Your task to perform on an android device: check out phone information Image 0: 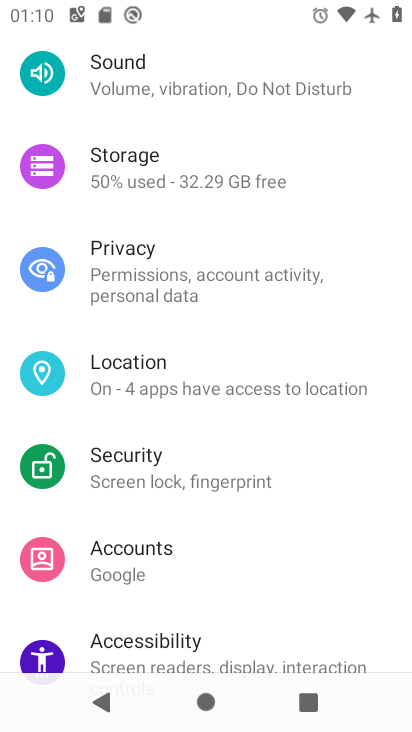
Step 0: press home button
Your task to perform on an android device: check out phone information Image 1: 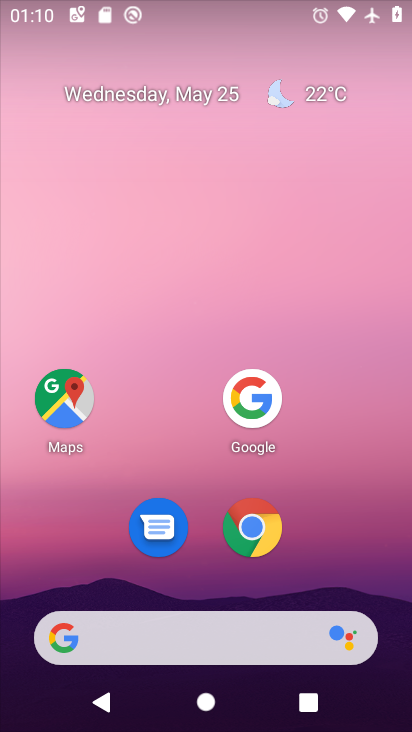
Step 1: drag from (181, 645) to (307, 138)
Your task to perform on an android device: check out phone information Image 2: 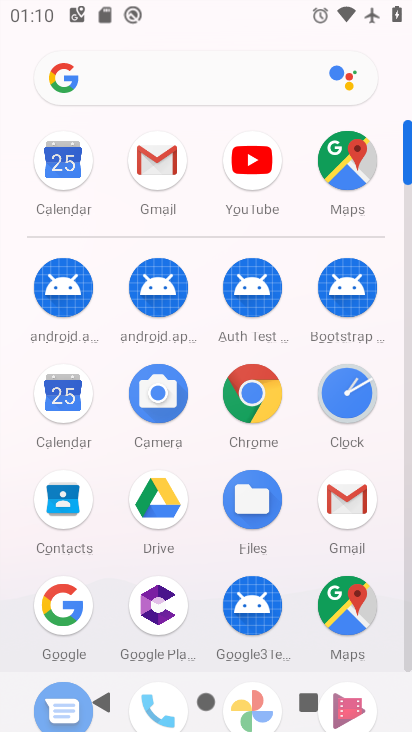
Step 2: drag from (193, 571) to (302, 221)
Your task to perform on an android device: check out phone information Image 3: 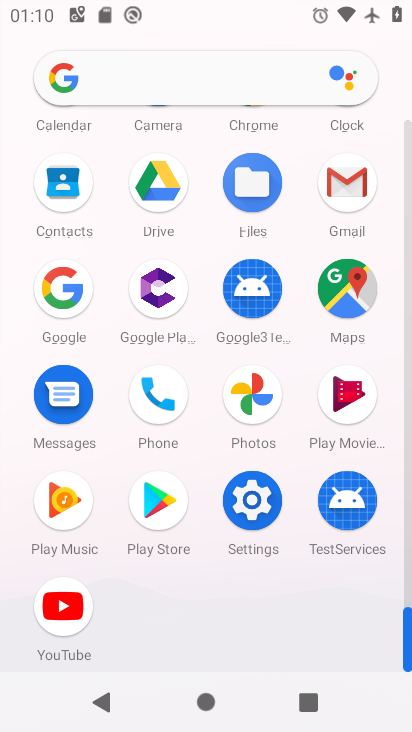
Step 3: click (265, 504)
Your task to perform on an android device: check out phone information Image 4: 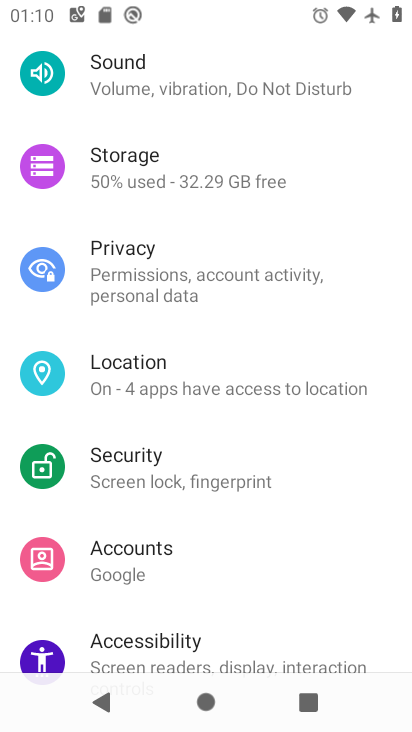
Step 4: drag from (258, 624) to (381, 81)
Your task to perform on an android device: check out phone information Image 5: 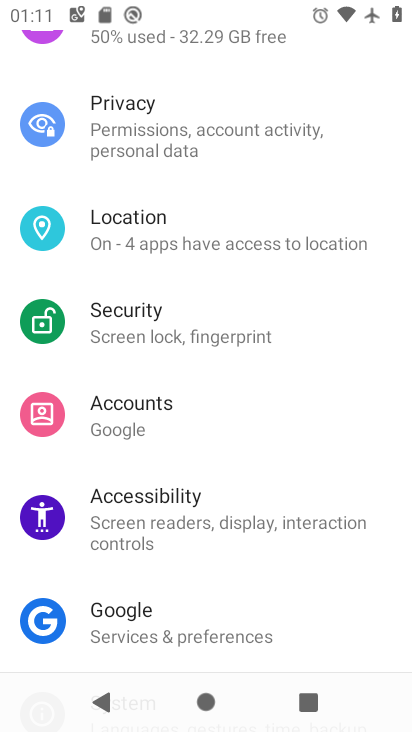
Step 5: drag from (211, 572) to (312, 101)
Your task to perform on an android device: check out phone information Image 6: 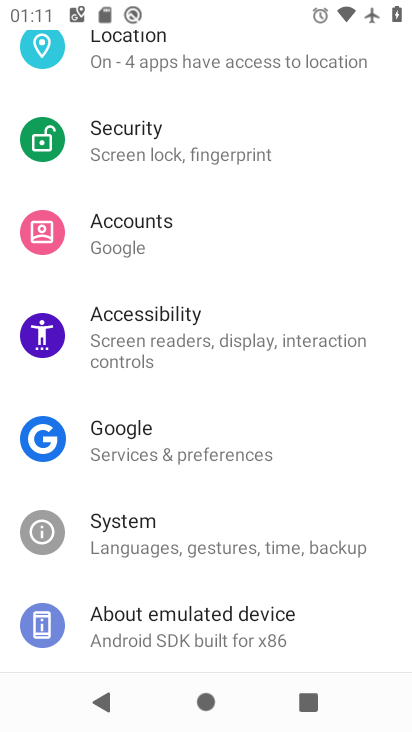
Step 6: click (173, 608)
Your task to perform on an android device: check out phone information Image 7: 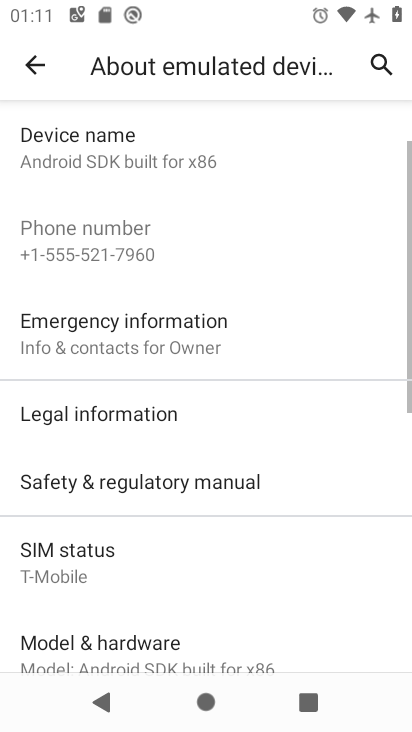
Step 7: task complete